Your task to perform on an android device: open device folders in google photos Image 0: 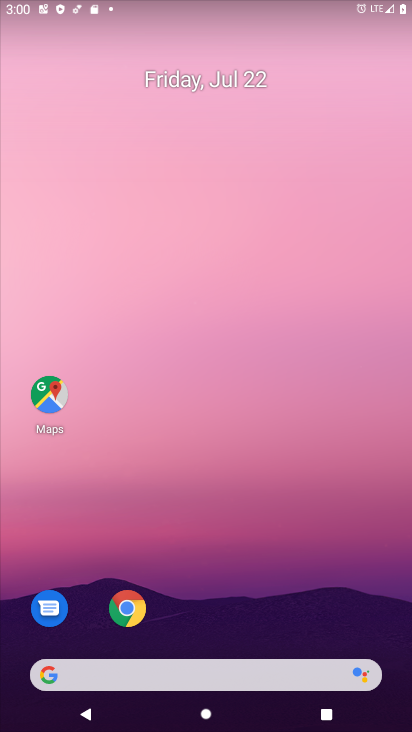
Step 0: drag from (238, 472) to (243, 56)
Your task to perform on an android device: open device folders in google photos Image 1: 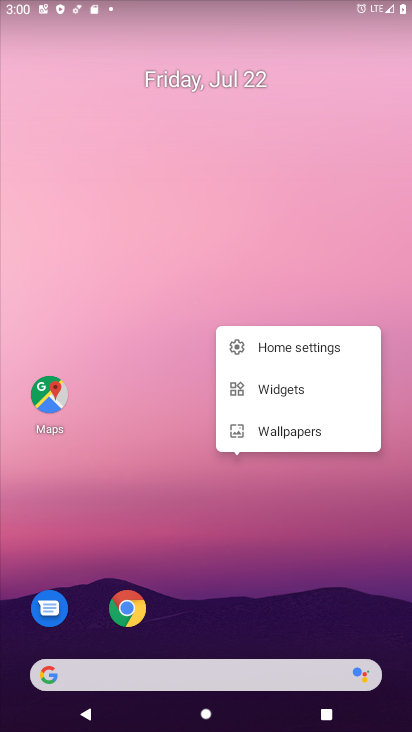
Step 1: drag from (294, 548) to (291, 118)
Your task to perform on an android device: open device folders in google photos Image 2: 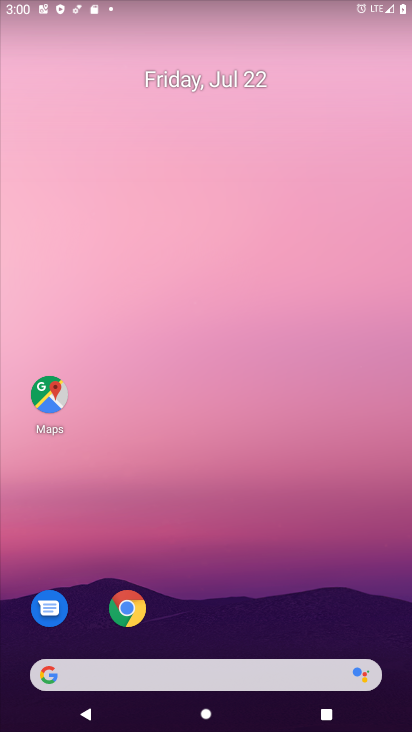
Step 2: drag from (284, 602) to (206, 136)
Your task to perform on an android device: open device folders in google photos Image 3: 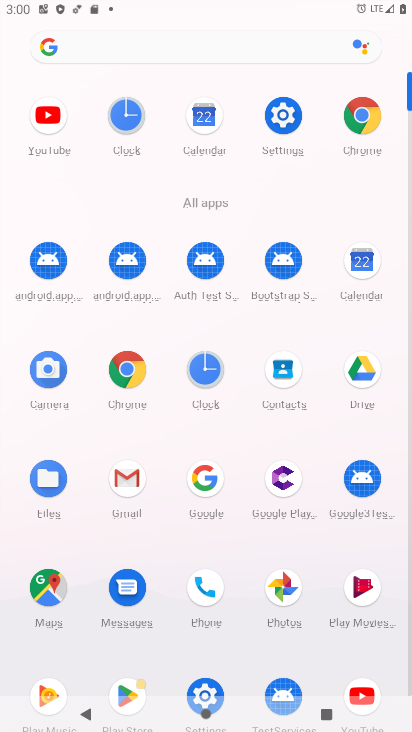
Step 3: click (289, 578)
Your task to perform on an android device: open device folders in google photos Image 4: 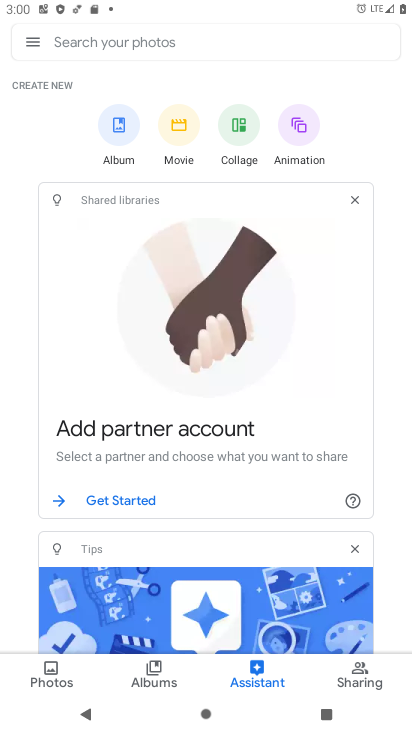
Step 4: click (30, 46)
Your task to perform on an android device: open device folders in google photos Image 5: 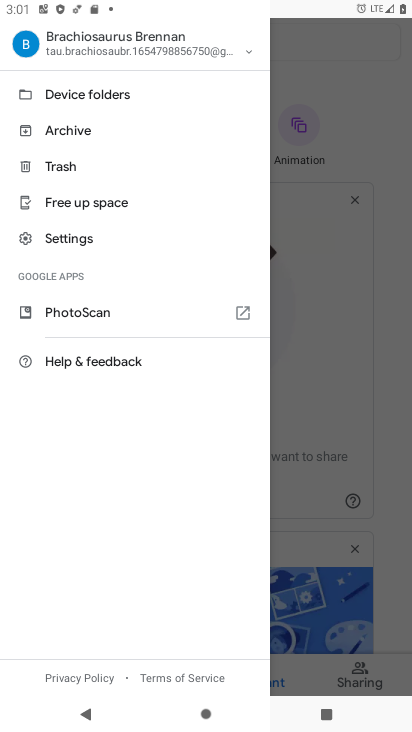
Step 5: click (81, 98)
Your task to perform on an android device: open device folders in google photos Image 6: 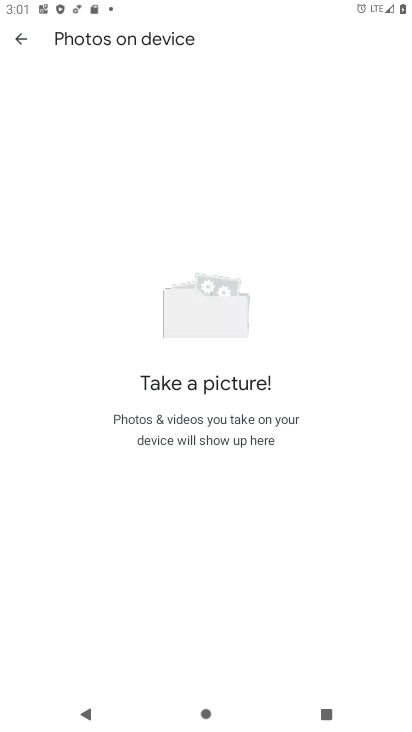
Step 6: task complete